Your task to perform on an android device: What's the weather like in Mumbai? Image 0: 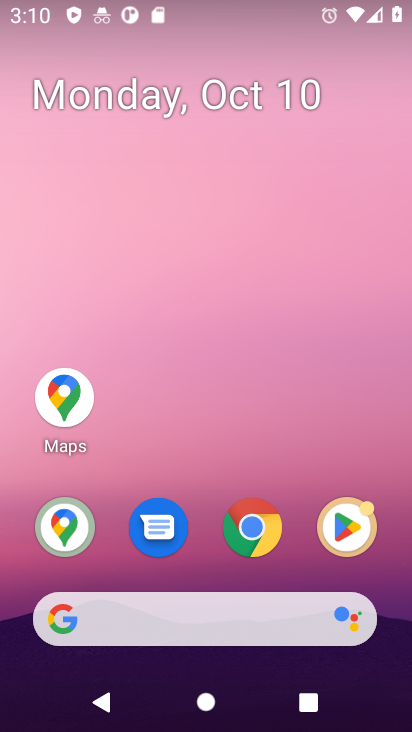
Step 0: click (255, 528)
Your task to perform on an android device: What's the weather like in Mumbai? Image 1: 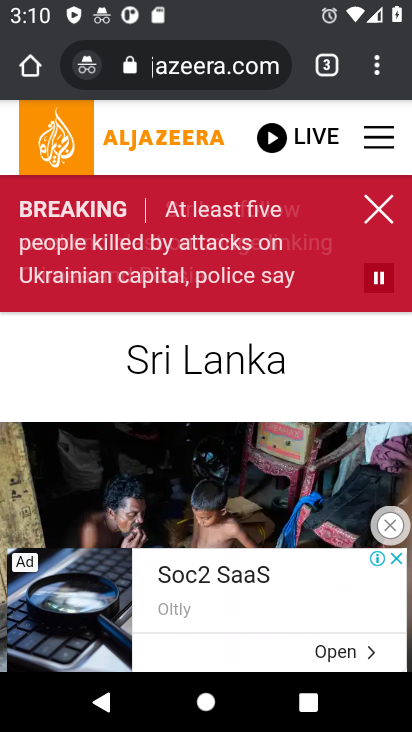
Step 1: click (241, 70)
Your task to perform on an android device: What's the weather like in Mumbai? Image 2: 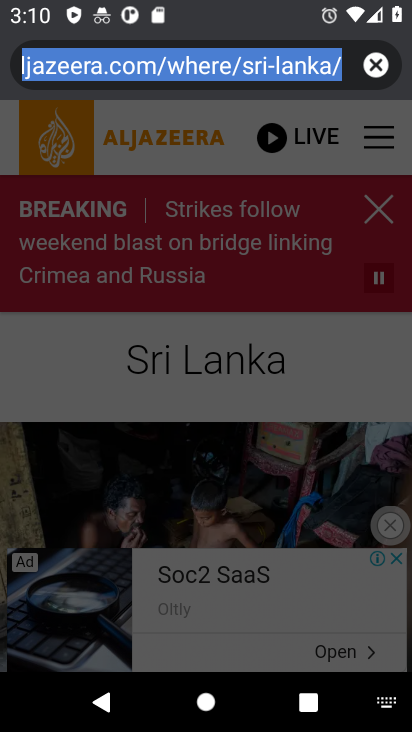
Step 2: click (376, 65)
Your task to perform on an android device: What's the weather like in Mumbai? Image 3: 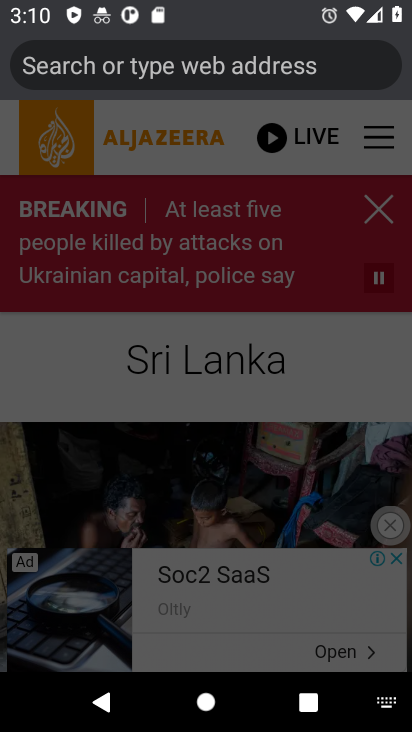
Step 3: type "What's the weather like in Mumbai"
Your task to perform on an android device: What's the weather like in Mumbai? Image 4: 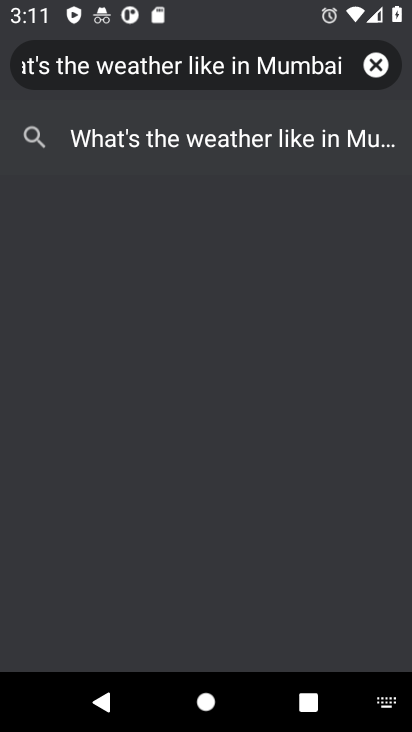
Step 4: click (252, 141)
Your task to perform on an android device: What's the weather like in Mumbai? Image 5: 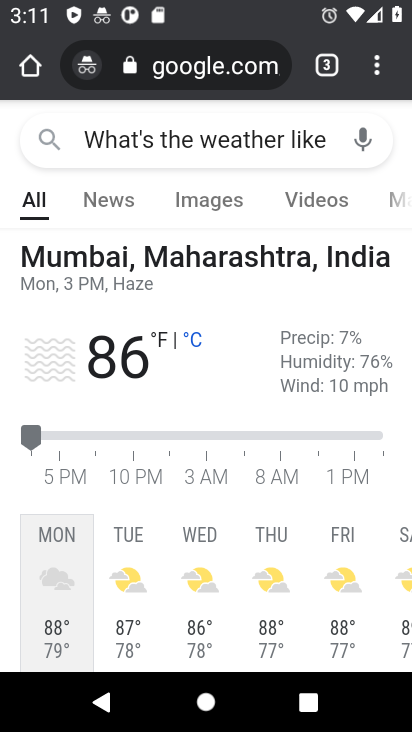
Step 5: task complete